Your task to perform on an android device: manage bookmarks in the chrome app Image 0: 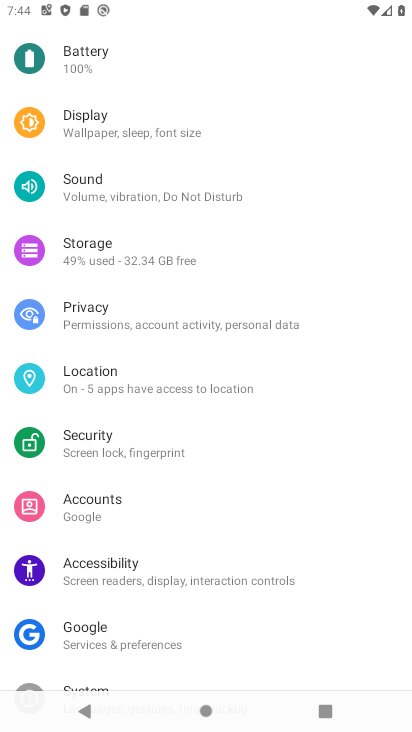
Step 0: press home button
Your task to perform on an android device: manage bookmarks in the chrome app Image 1: 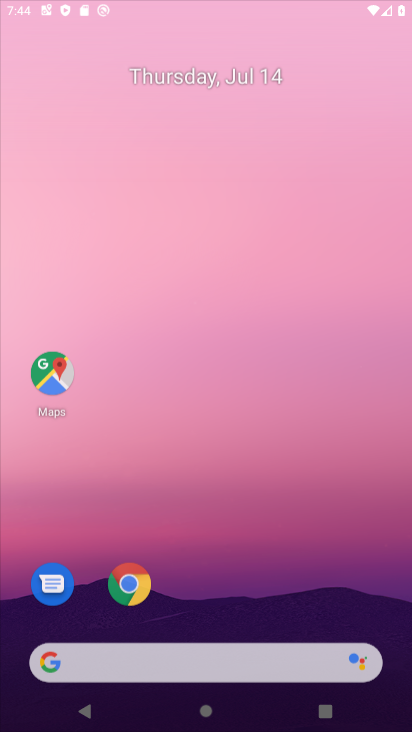
Step 1: drag from (391, 689) to (270, 8)
Your task to perform on an android device: manage bookmarks in the chrome app Image 2: 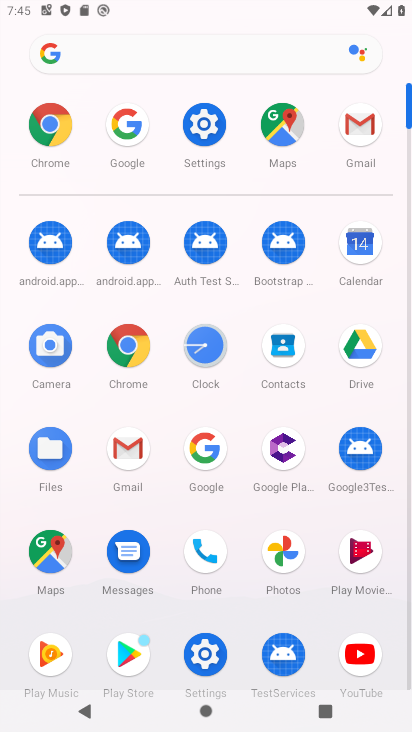
Step 2: click (128, 341)
Your task to perform on an android device: manage bookmarks in the chrome app Image 3: 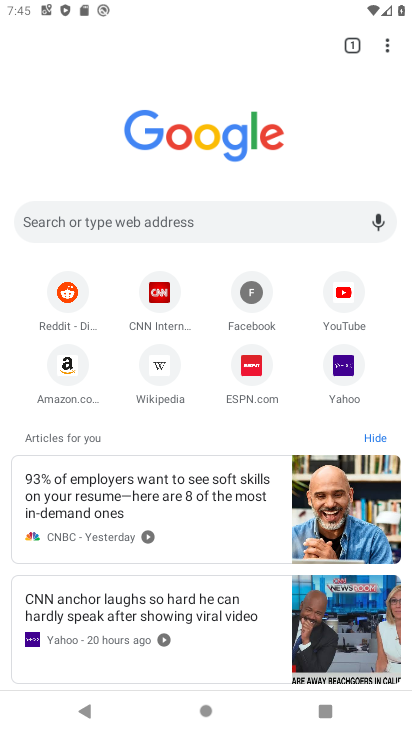
Step 3: task complete